Your task to perform on an android device: Open the stopwatch Image 0: 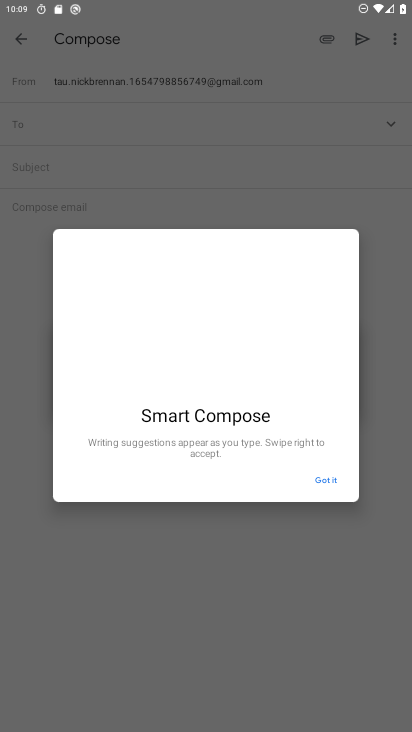
Step 0: press home button
Your task to perform on an android device: Open the stopwatch Image 1: 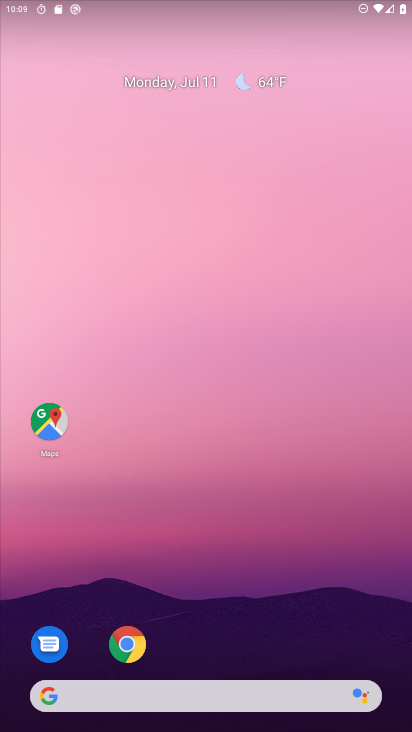
Step 1: drag from (259, 652) to (237, 117)
Your task to perform on an android device: Open the stopwatch Image 2: 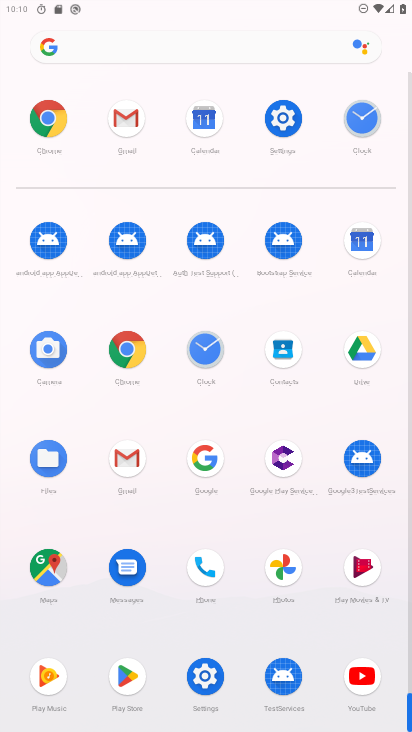
Step 2: click (370, 122)
Your task to perform on an android device: Open the stopwatch Image 3: 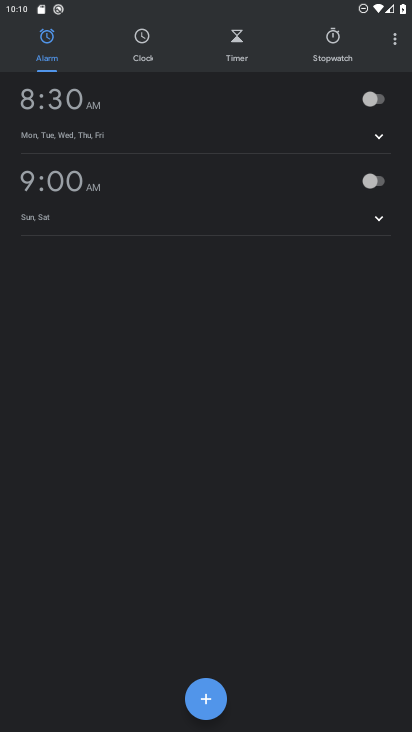
Step 3: click (332, 44)
Your task to perform on an android device: Open the stopwatch Image 4: 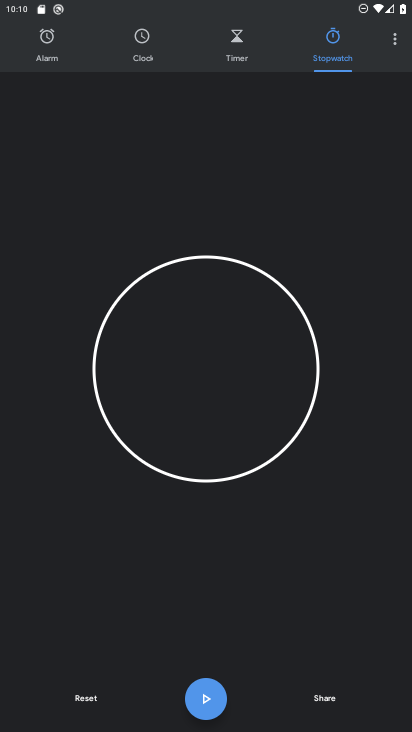
Step 4: task complete